Your task to perform on an android device: Is it going to rain tomorrow? Image 0: 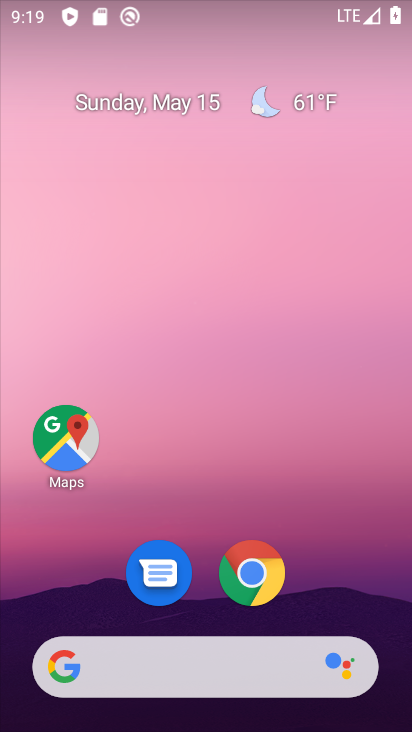
Step 0: click (173, 661)
Your task to perform on an android device: Is it going to rain tomorrow? Image 1: 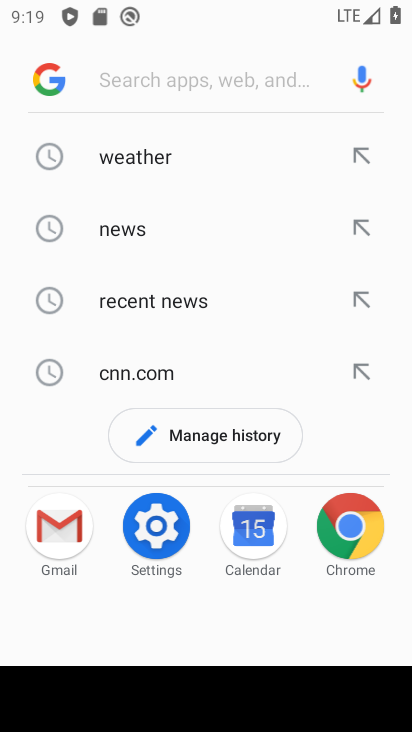
Step 1: click (104, 172)
Your task to perform on an android device: Is it going to rain tomorrow? Image 2: 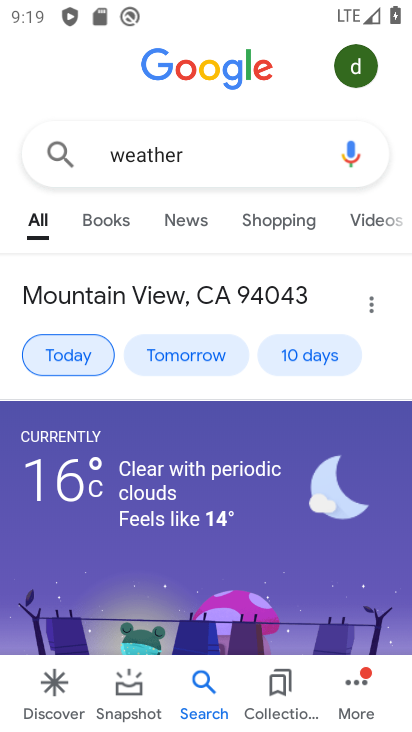
Step 2: click (199, 350)
Your task to perform on an android device: Is it going to rain tomorrow? Image 3: 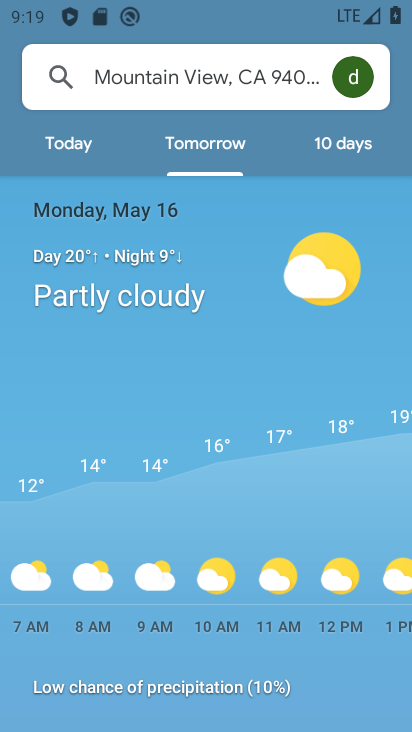
Step 3: task complete